Your task to perform on an android device: check data usage Image 0: 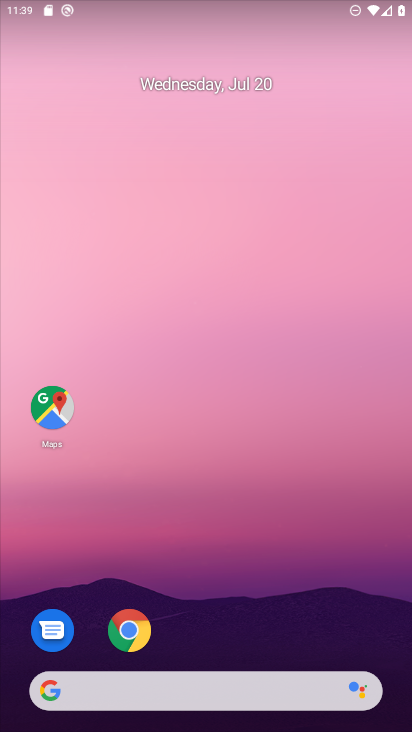
Step 0: press home button
Your task to perform on an android device: check data usage Image 1: 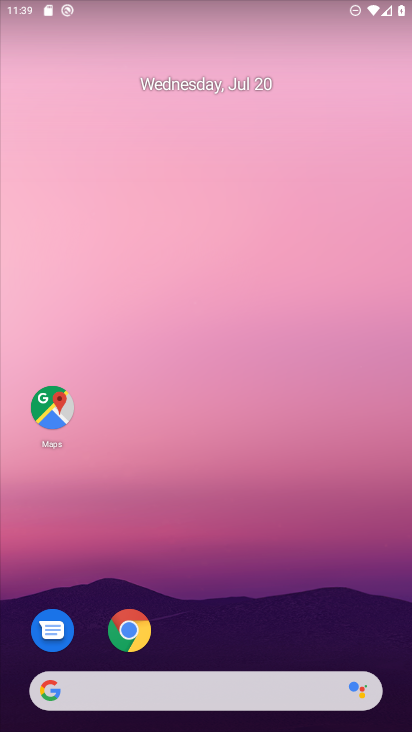
Step 1: drag from (244, 702) to (125, 102)
Your task to perform on an android device: check data usage Image 2: 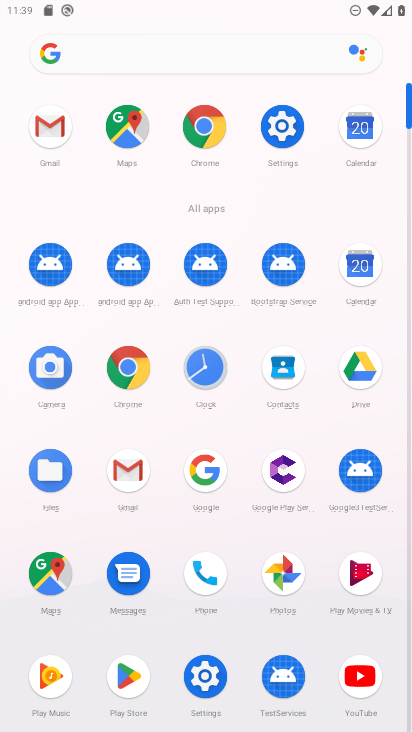
Step 2: click (278, 145)
Your task to perform on an android device: check data usage Image 3: 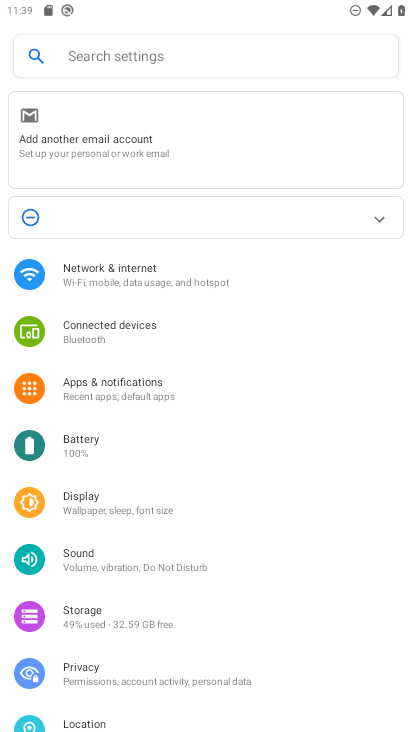
Step 3: click (107, 47)
Your task to perform on an android device: check data usage Image 4: 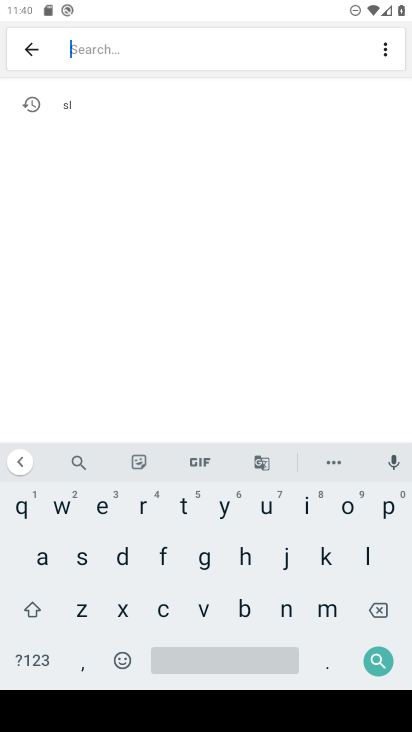
Step 4: click (117, 555)
Your task to perform on an android device: check data usage Image 5: 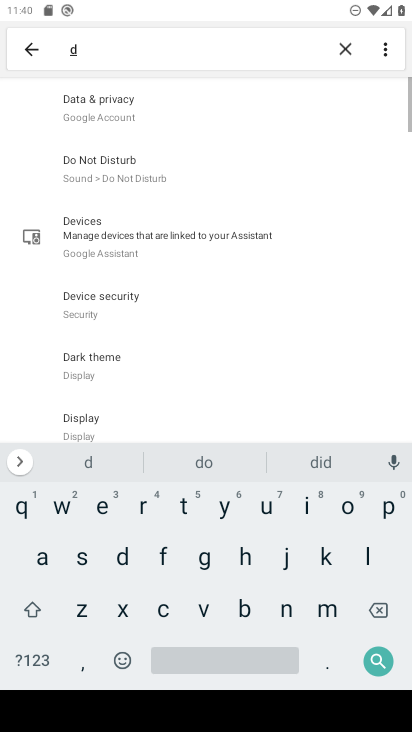
Step 5: click (38, 556)
Your task to perform on an android device: check data usage Image 6: 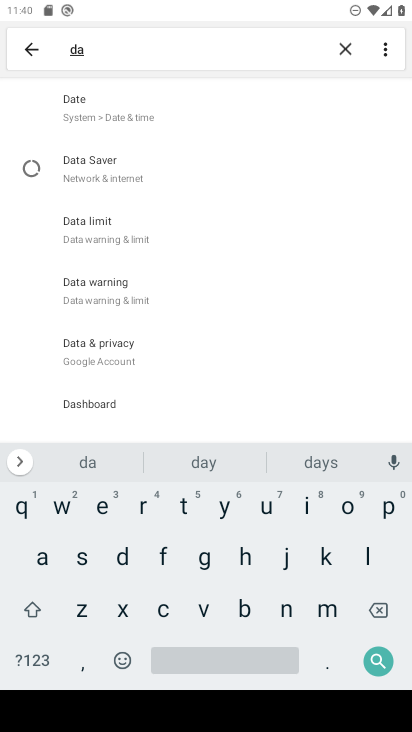
Step 6: click (183, 504)
Your task to perform on an android device: check data usage Image 7: 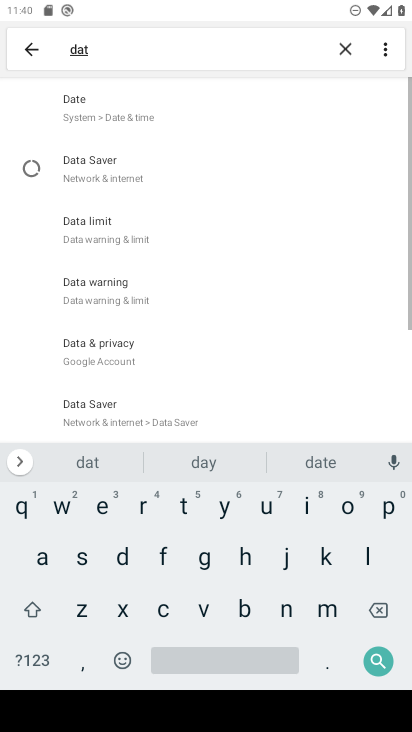
Step 7: click (38, 559)
Your task to perform on an android device: check data usage Image 8: 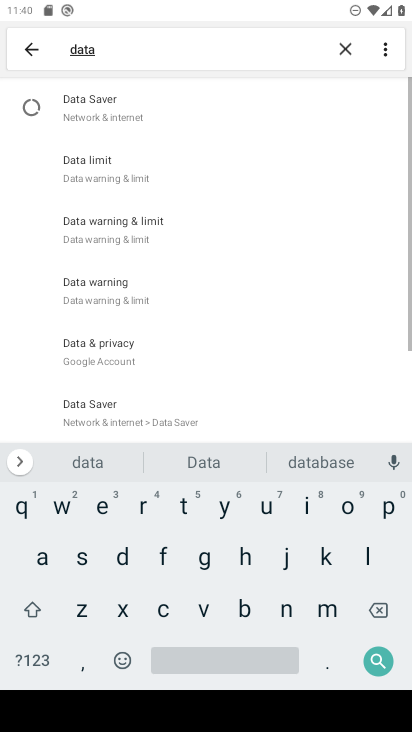
Step 8: click (200, 652)
Your task to perform on an android device: check data usage Image 9: 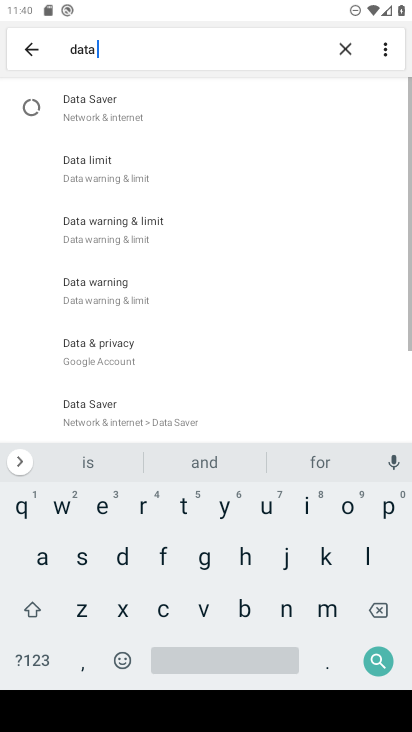
Step 9: click (261, 506)
Your task to perform on an android device: check data usage Image 10: 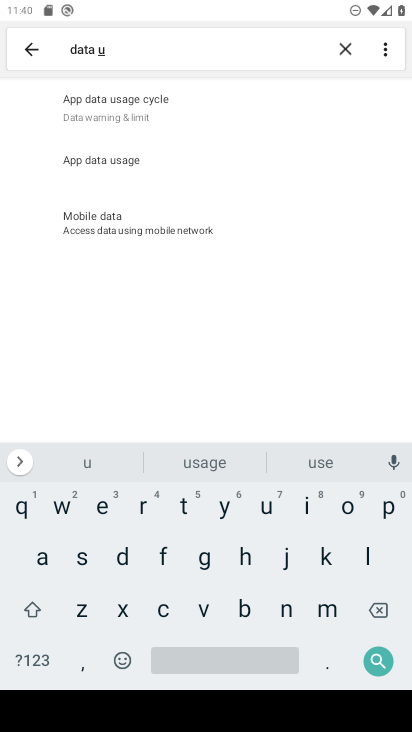
Step 10: click (97, 155)
Your task to perform on an android device: check data usage Image 11: 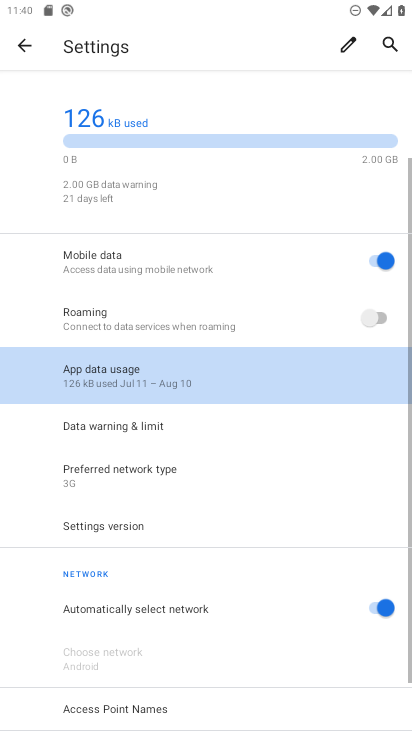
Step 11: click (130, 386)
Your task to perform on an android device: check data usage Image 12: 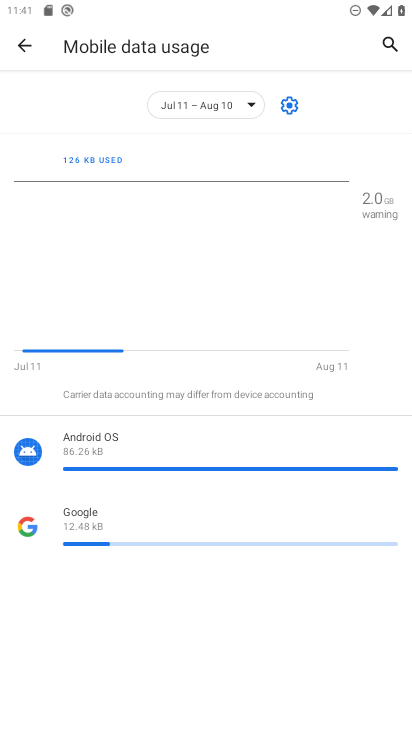
Step 12: task complete